Your task to perform on an android device: Open Google Maps and go to "Timeline" Image 0: 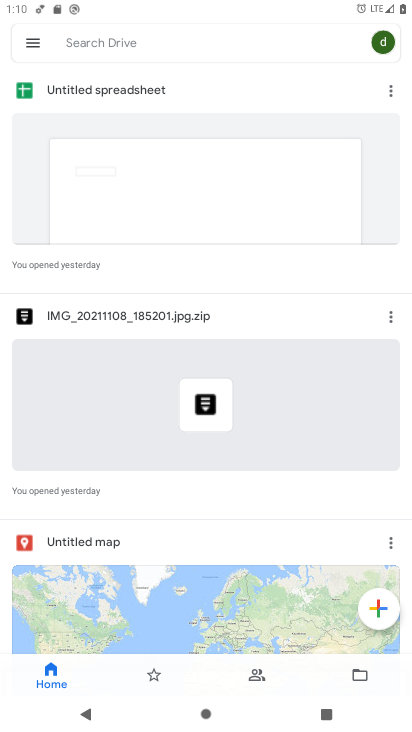
Step 0: press home button
Your task to perform on an android device: Open Google Maps and go to "Timeline" Image 1: 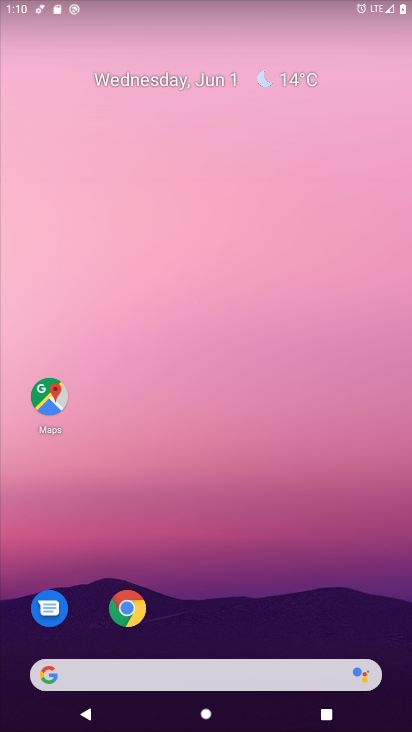
Step 1: click (48, 385)
Your task to perform on an android device: Open Google Maps and go to "Timeline" Image 2: 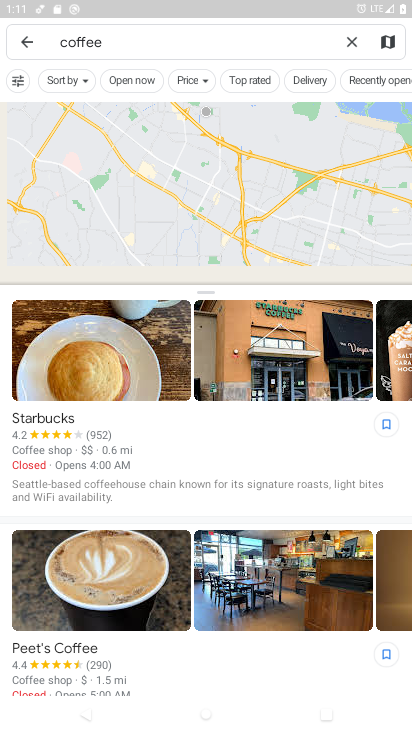
Step 2: click (22, 35)
Your task to perform on an android device: Open Google Maps and go to "Timeline" Image 3: 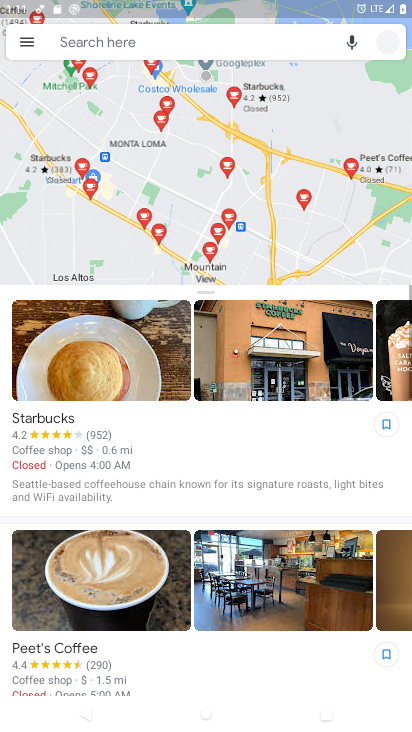
Step 3: click (21, 34)
Your task to perform on an android device: Open Google Maps and go to "Timeline" Image 4: 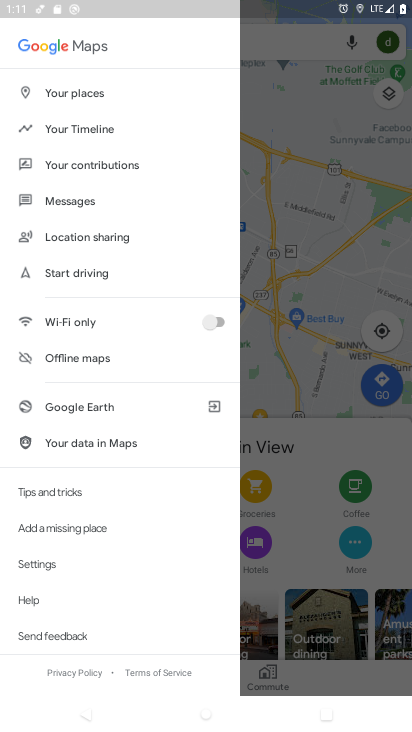
Step 4: click (82, 134)
Your task to perform on an android device: Open Google Maps and go to "Timeline" Image 5: 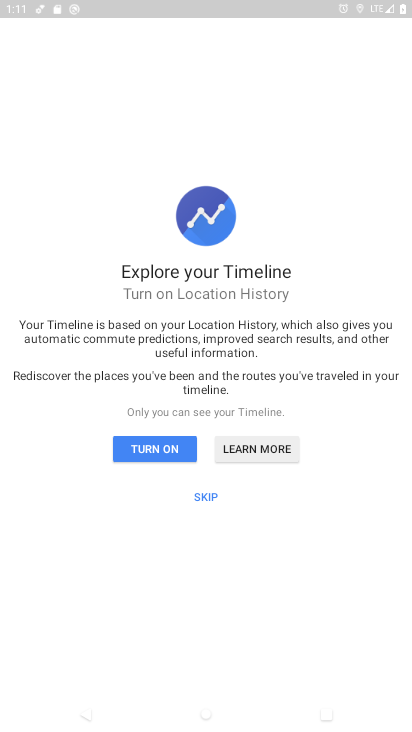
Step 5: click (206, 487)
Your task to perform on an android device: Open Google Maps and go to "Timeline" Image 6: 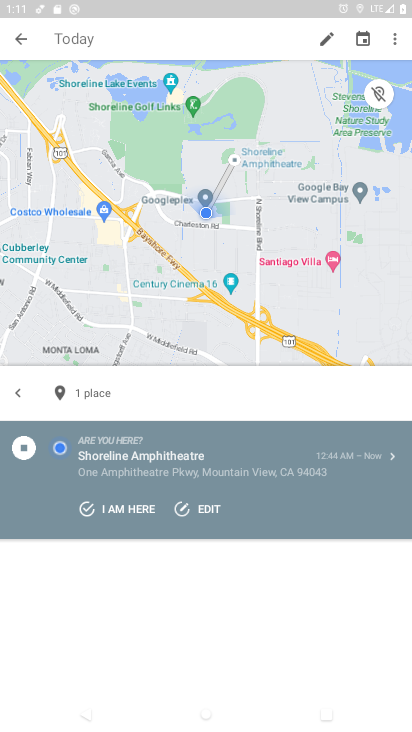
Step 6: task complete